Your task to perform on an android device: Go to Wikipedia Image 0: 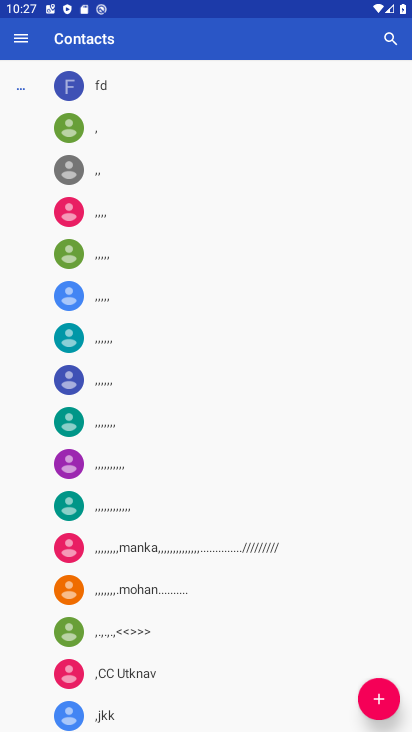
Step 0: press home button
Your task to perform on an android device: Go to Wikipedia Image 1: 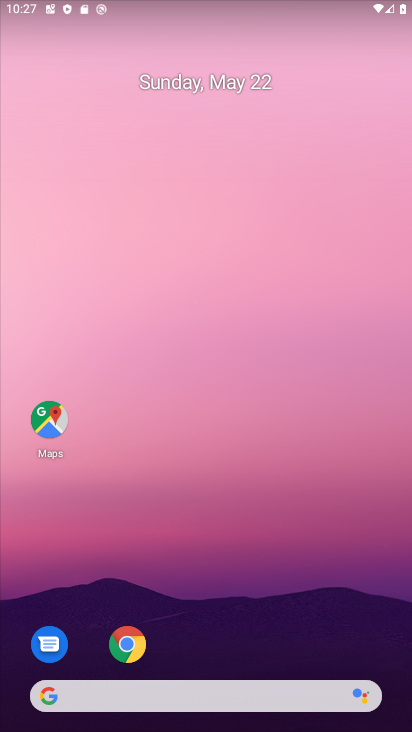
Step 1: drag from (231, 678) to (231, 240)
Your task to perform on an android device: Go to Wikipedia Image 2: 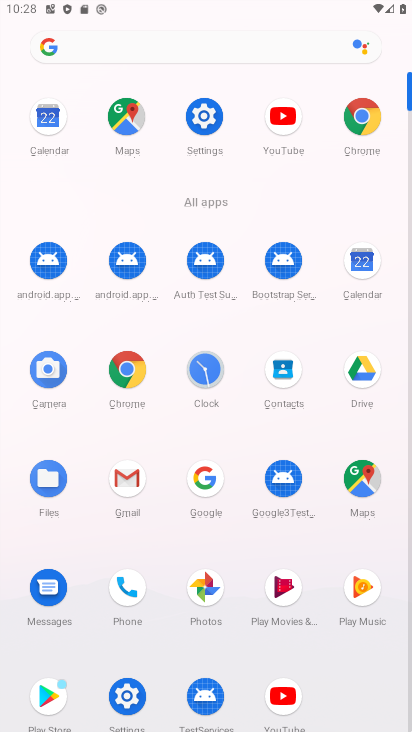
Step 2: click (129, 373)
Your task to perform on an android device: Go to Wikipedia Image 3: 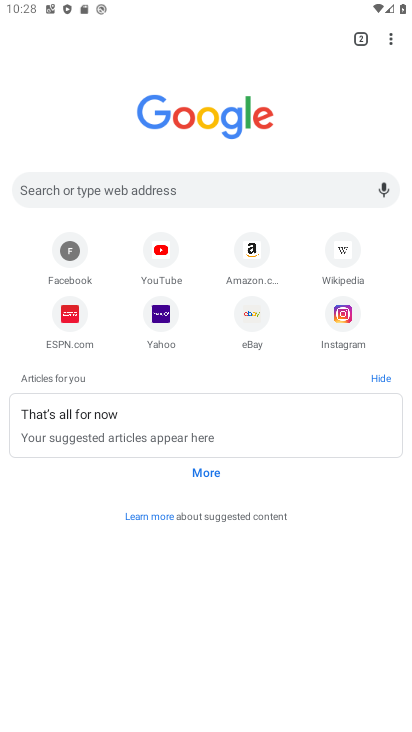
Step 3: click (342, 253)
Your task to perform on an android device: Go to Wikipedia Image 4: 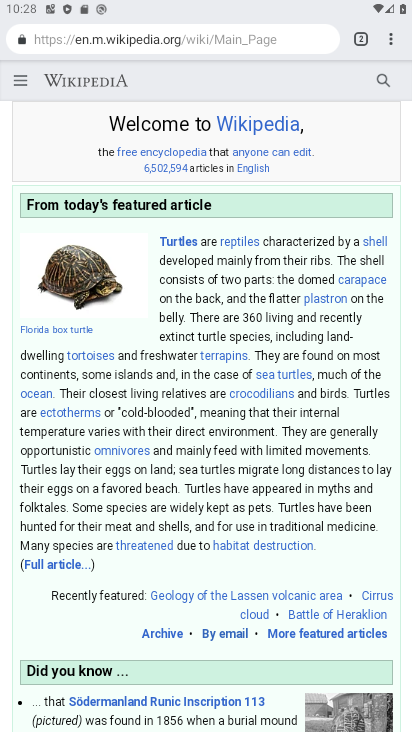
Step 4: task complete